Your task to perform on an android device: Open notification settings Image 0: 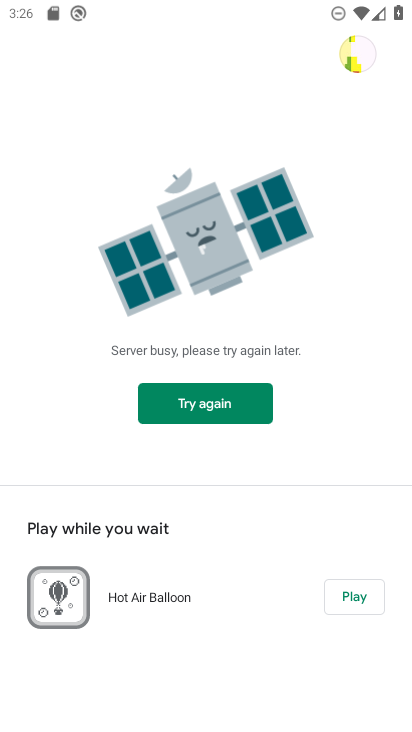
Step 0: press back button
Your task to perform on an android device: Open notification settings Image 1: 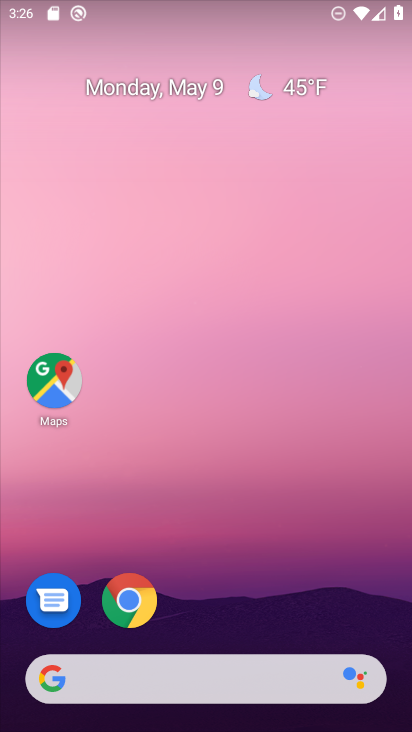
Step 1: drag from (250, 542) to (309, 0)
Your task to perform on an android device: Open notification settings Image 2: 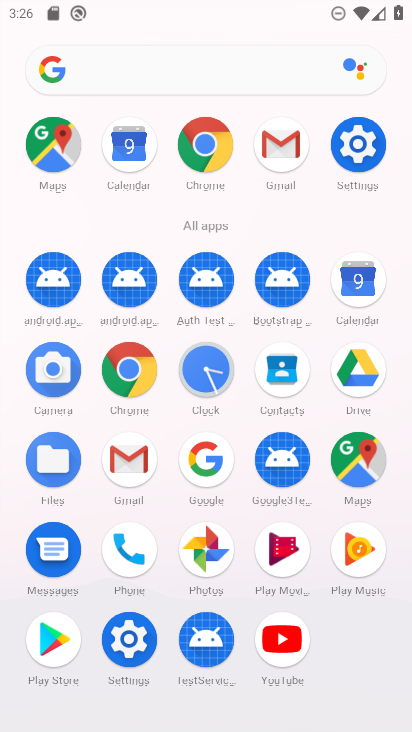
Step 2: click (352, 142)
Your task to perform on an android device: Open notification settings Image 3: 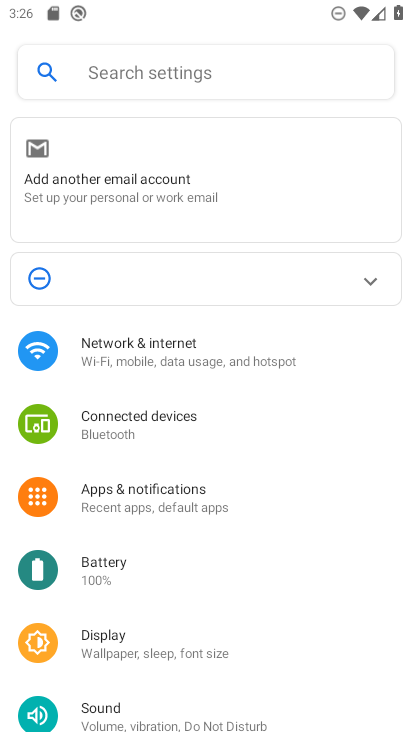
Step 3: drag from (261, 536) to (275, 112)
Your task to perform on an android device: Open notification settings Image 4: 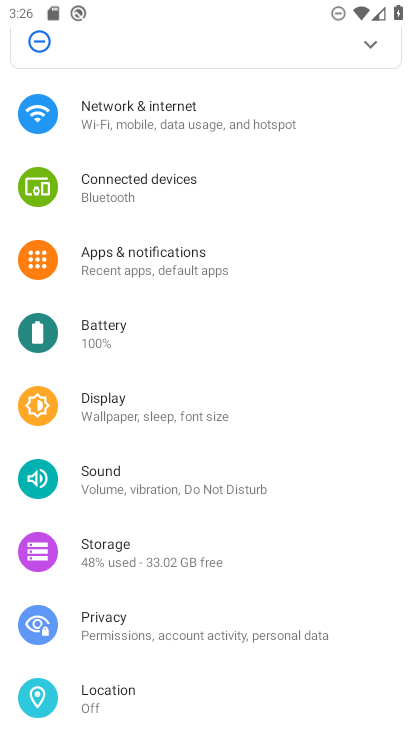
Step 4: click (200, 264)
Your task to perform on an android device: Open notification settings Image 5: 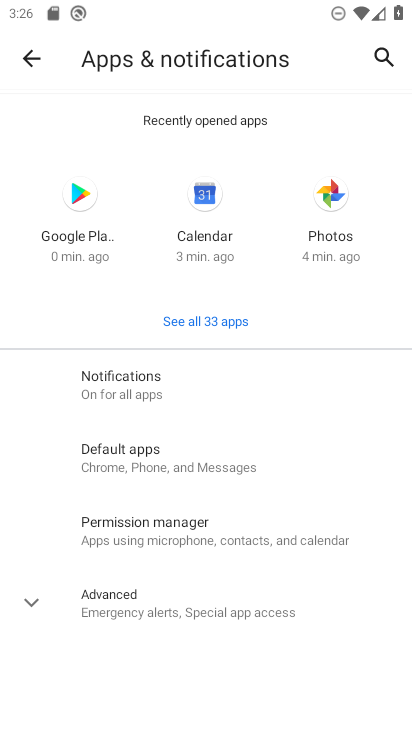
Step 5: click (15, 603)
Your task to perform on an android device: Open notification settings Image 6: 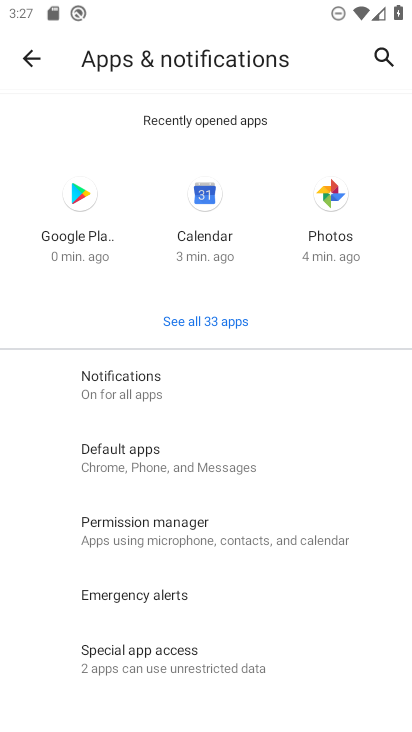
Step 6: click (167, 379)
Your task to perform on an android device: Open notification settings Image 7: 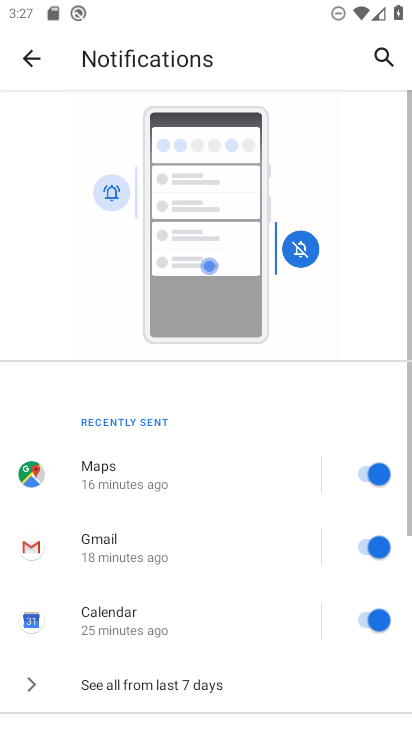
Step 7: drag from (202, 617) to (267, 134)
Your task to perform on an android device: Open notification settings Image 8: 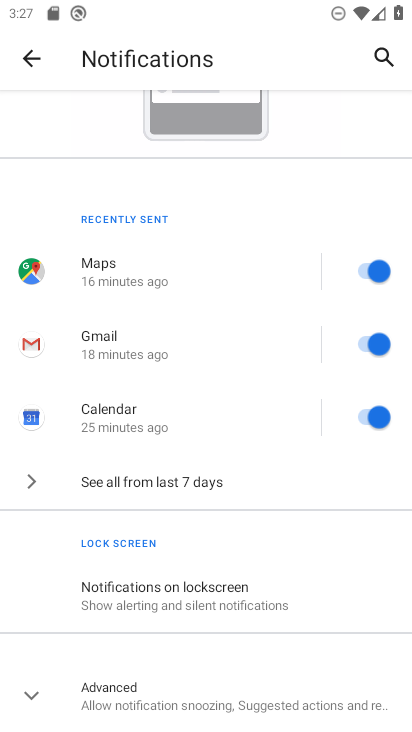
Step 8: click (44, 693)
Your task to perform on an android device: Open notification settings Image 9: 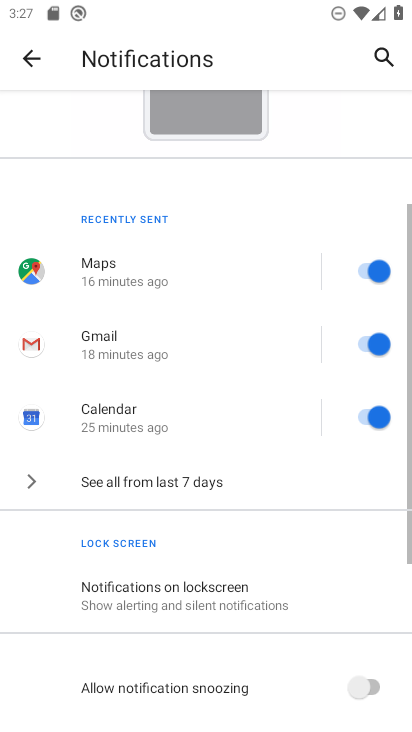
Step 9: task complete